Your task to perform on an android device: Open Yahoo.com Image 0: 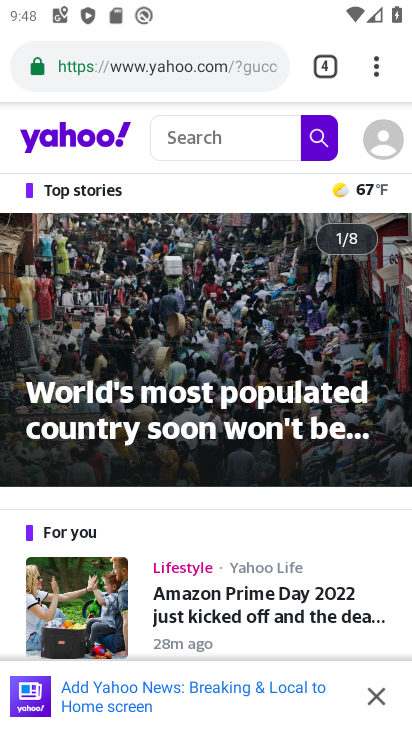
Step 0: press home button
Your task to perform on an android device: Open Yahoo.com Image 1: 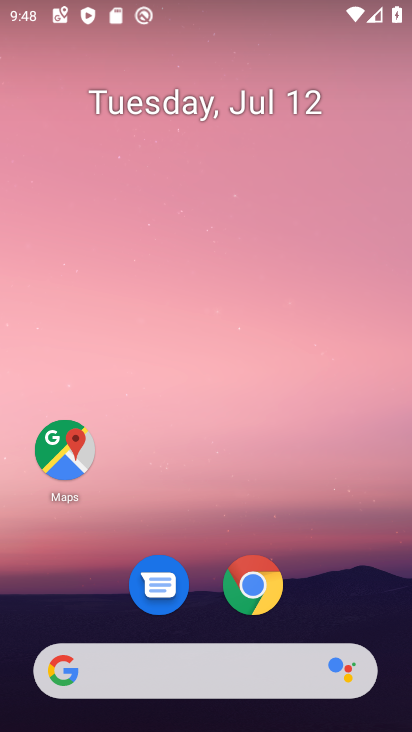
Step 1: click (257, 583)
Your task to perform on an android device: Open Yahoo.com Image 2: 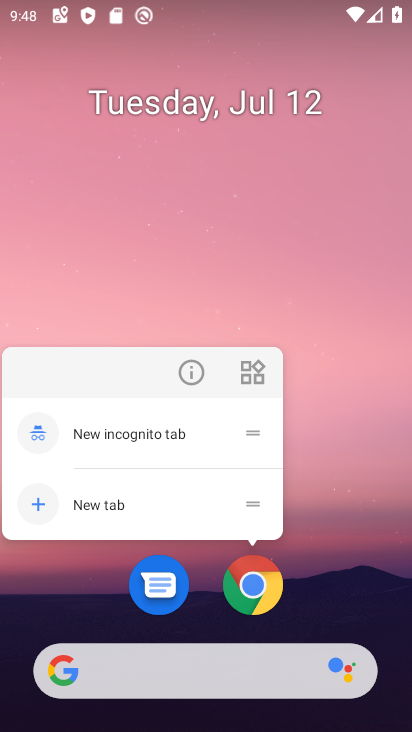
Step 2: click (258, 581)
Your task to perform on an android device: Open Yahoo.com Image 3: 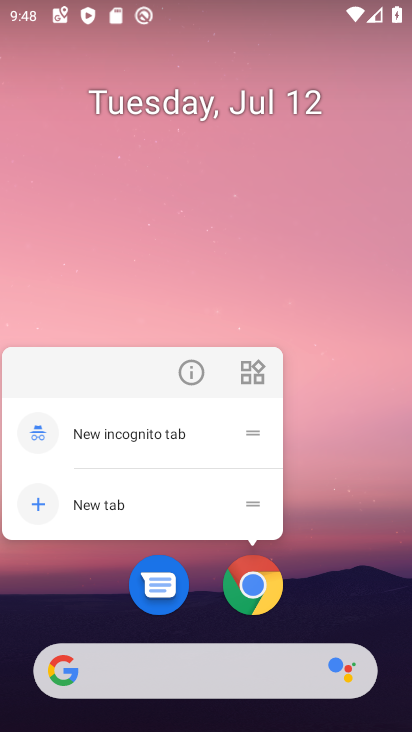
Step 3: click (252, 591)
Your task to perform on an android device: Open Yahoo.com Image 4: 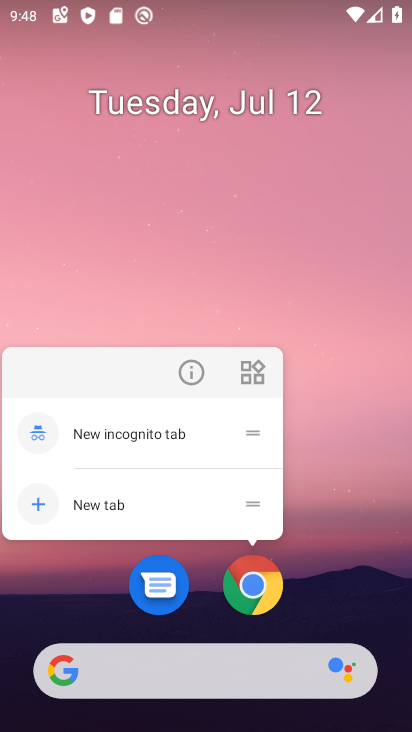
Step 4: click (252, 590)
Your task to perform on an android device: Open Yahoo.com Image 5: 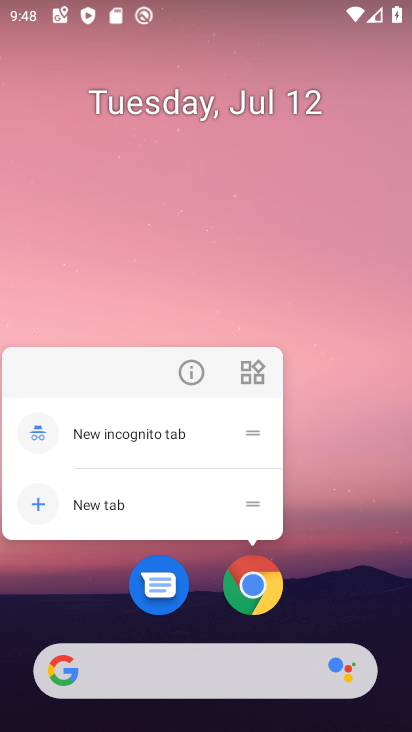
Step 5: click (252, 592)
Your task to perform on an android device: Open Yahoo.com Image 6: 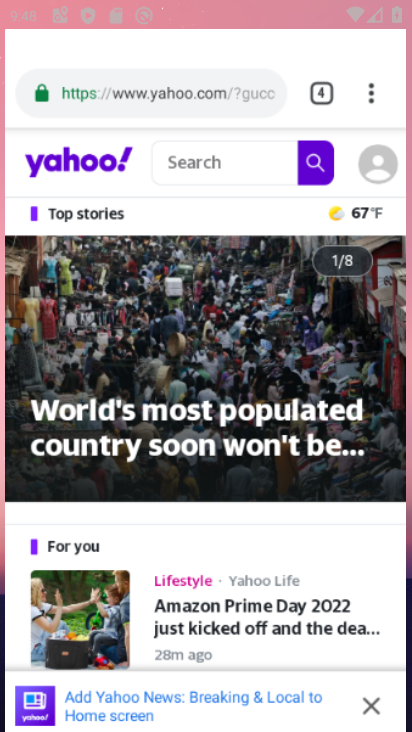
Step 6: click (252, 592)
Your task to perform on an android device: Open Yahoo.com Image 7: 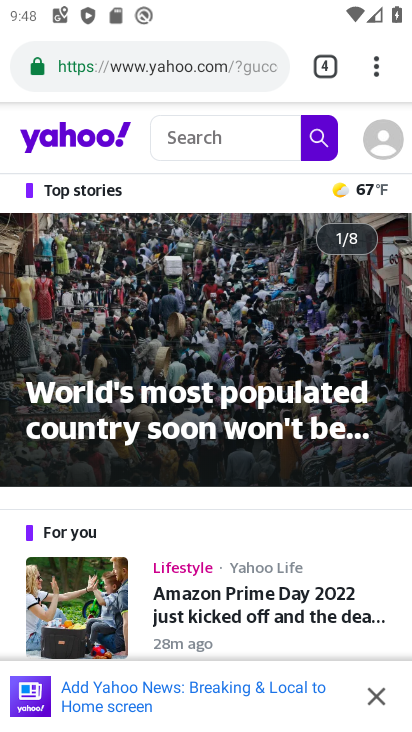
Step 7: task complete